Your task to perform on an android device: Is it going to rain tomorrow? Image 0: 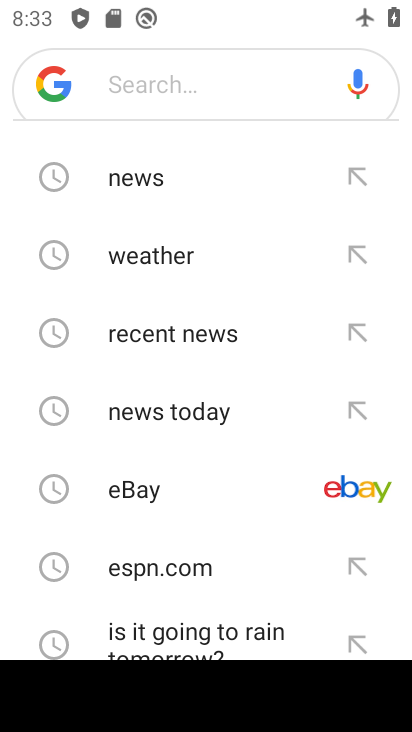
Step 0: press home button
Your task to perform on an android device: Is it going to rain tomorrow? Image 1: 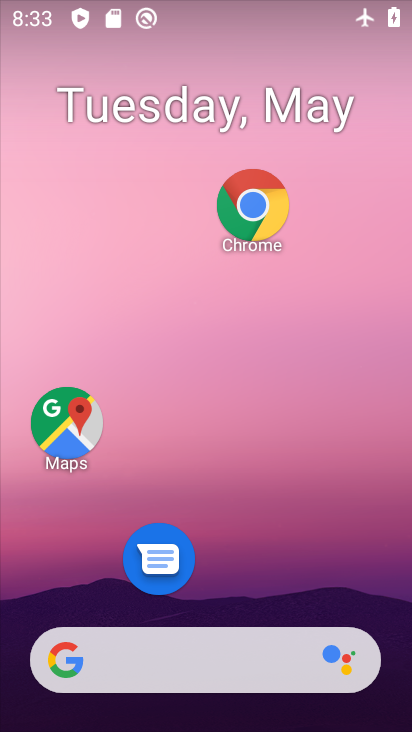
Step 1: drag from (220, 593) to (210, 345)
Your task to perform on an android device: Is it going to rain tomorrow? Image 2: 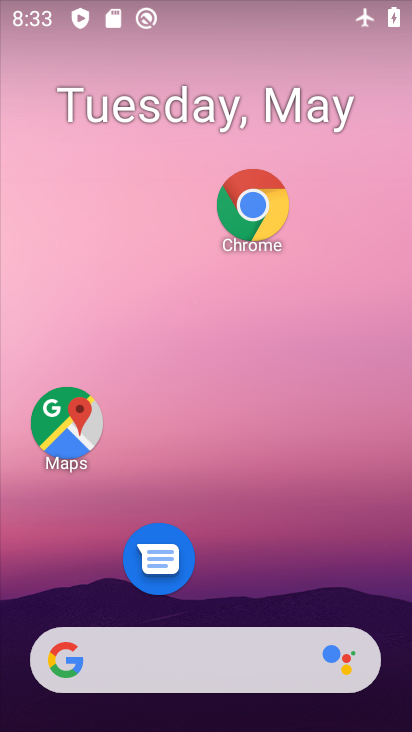
Step 2: drag from (233, 597) to (241, 195)
Your task to perform on an android device: Is it going to rain tomorrow? Image 3: 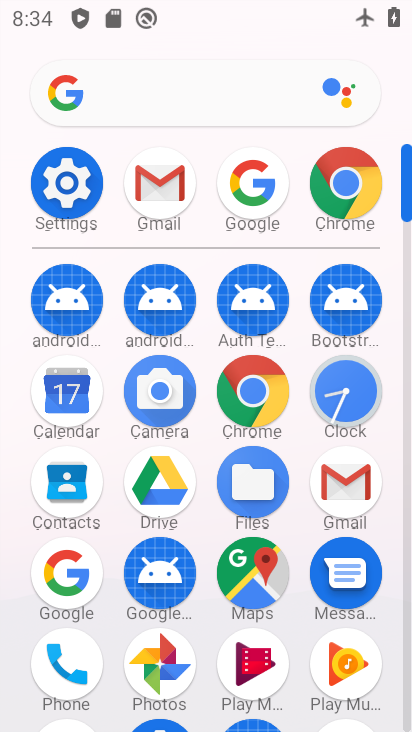
Step 3: click (58, 551)
Your task to perform on an android device: Is it going to rain tomorrow? Image 4: 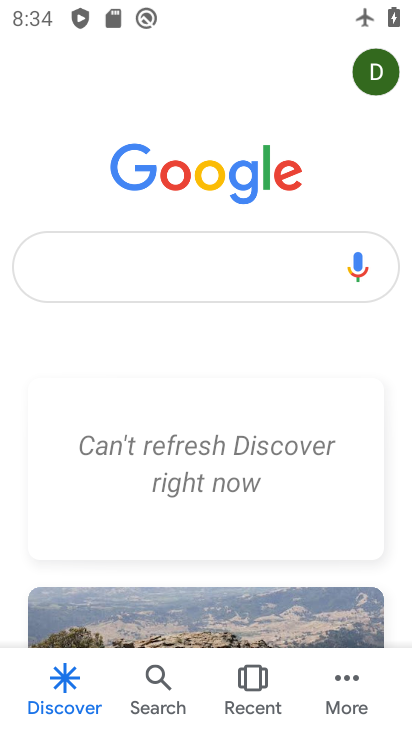
Step 4: click (143, 275)
Your task to perform on an android device: Is it going to rain tomorrow? Image 5: 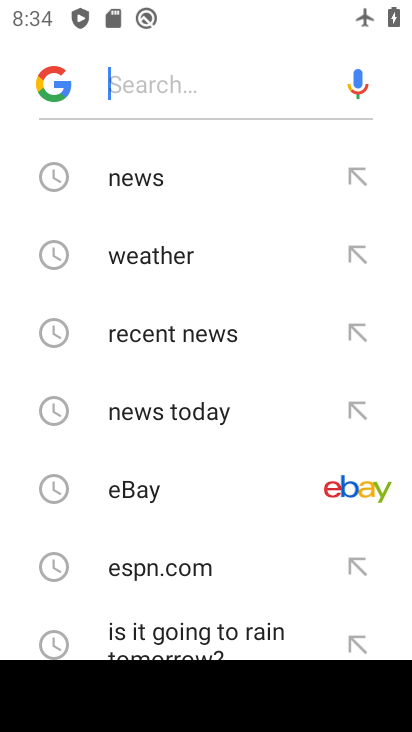
Step 5: click (158, 261)
Your task to perform on an android device: Is it going to rain tomorrow? Image 6: 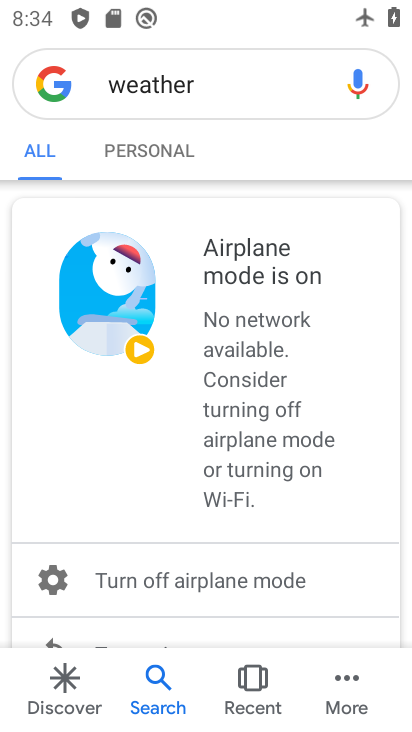
Step 6: task complete